Your task to perform on an android device: set an alarm Image 0: 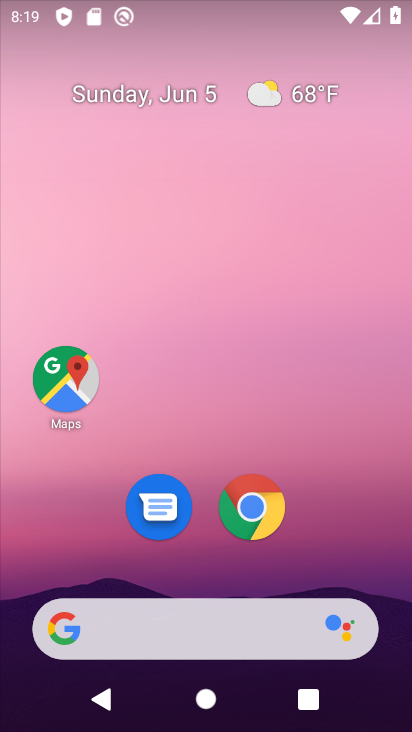
Step 0: drag from (228, 726) to (236, 68)
Your task to perform on an android device: set an alarm Image 1: 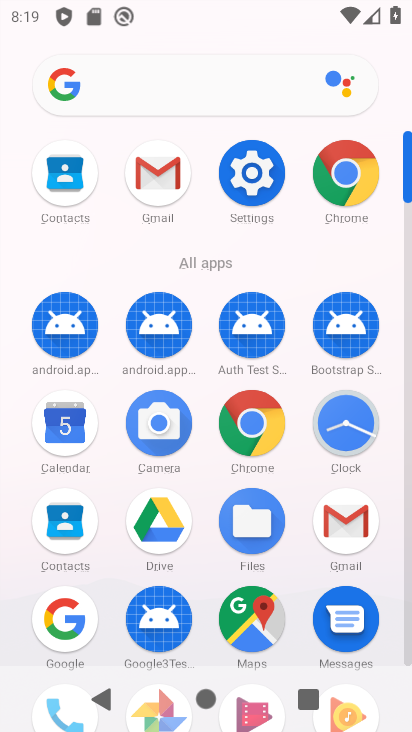
Step 1: click (353, 425)
Your task to perform on an android device: set an alarm Image 2: 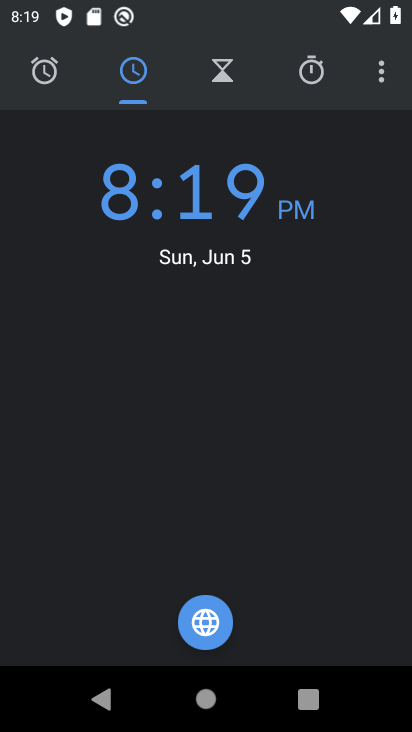
Step 2: click (47, 78)
Your task to perform on an android device: set an alarm Image 3: 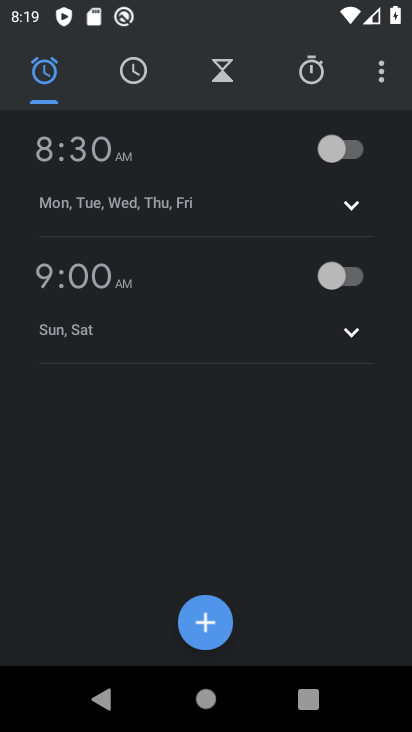
Step 3: click (204, 622)
Your task to perform on an android device: set an alarm Image 4: 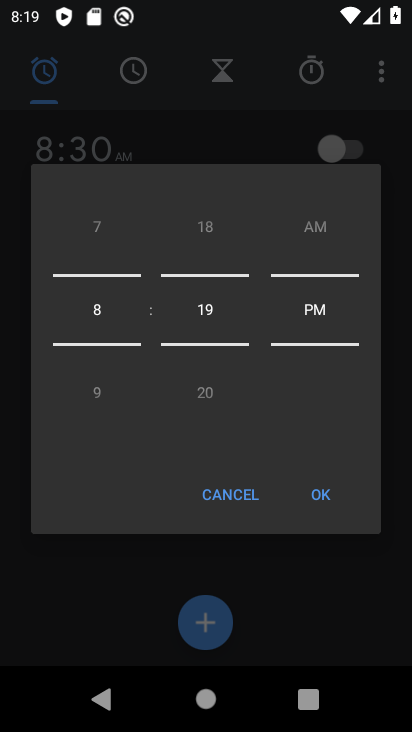
Step 4: click (206, 389)
Your task to perform on an android device: set an alarm Image 5: 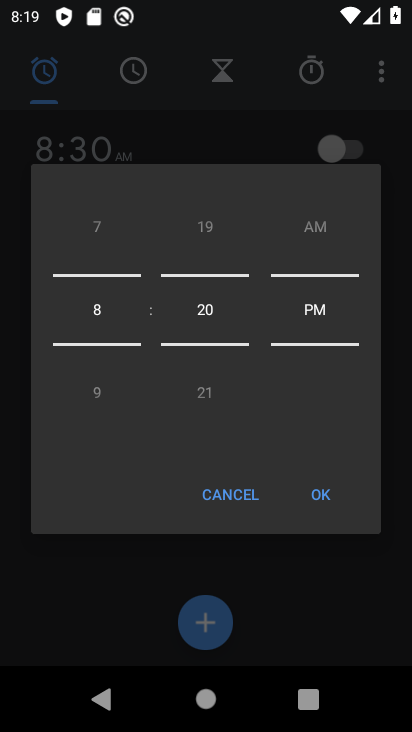
Step 5: click (316, 219)
Your task to perform on an android device: set an alarm Image 6: 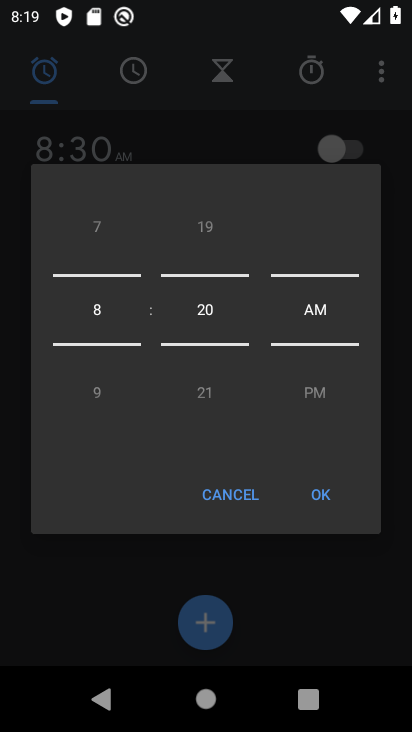
Step 6: click (324, 491)
Your task to perform on an android device: set an alarm Image 7: 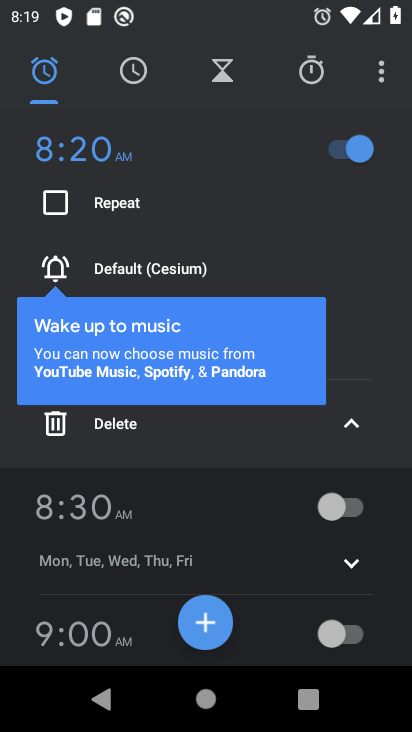
Step 7: task complete